Your task to perform on an android device: Open privacy settings Image 0: 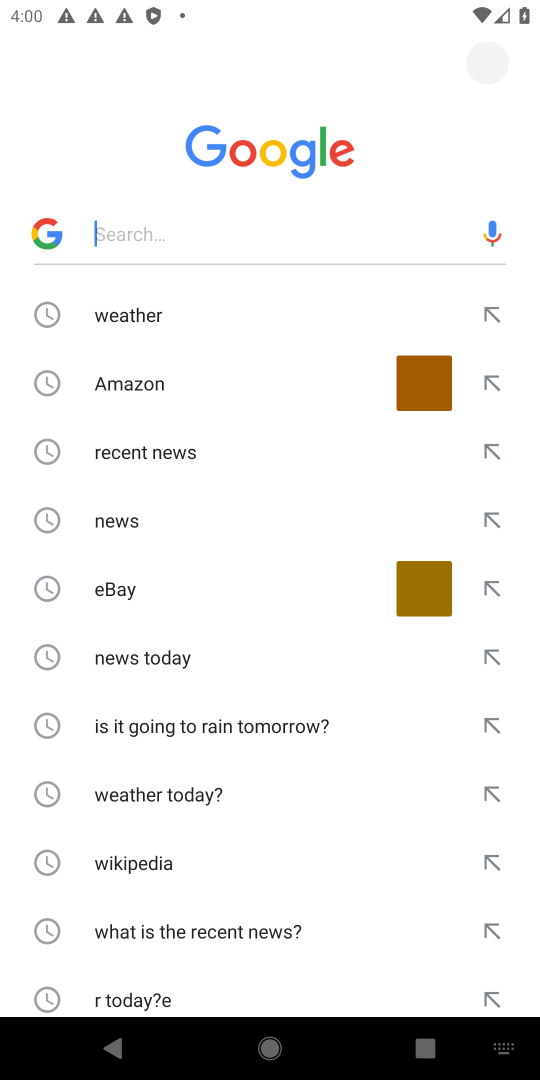
Step 0: press home button
Your task to perform on an android device: Open privacy settings Image 1: 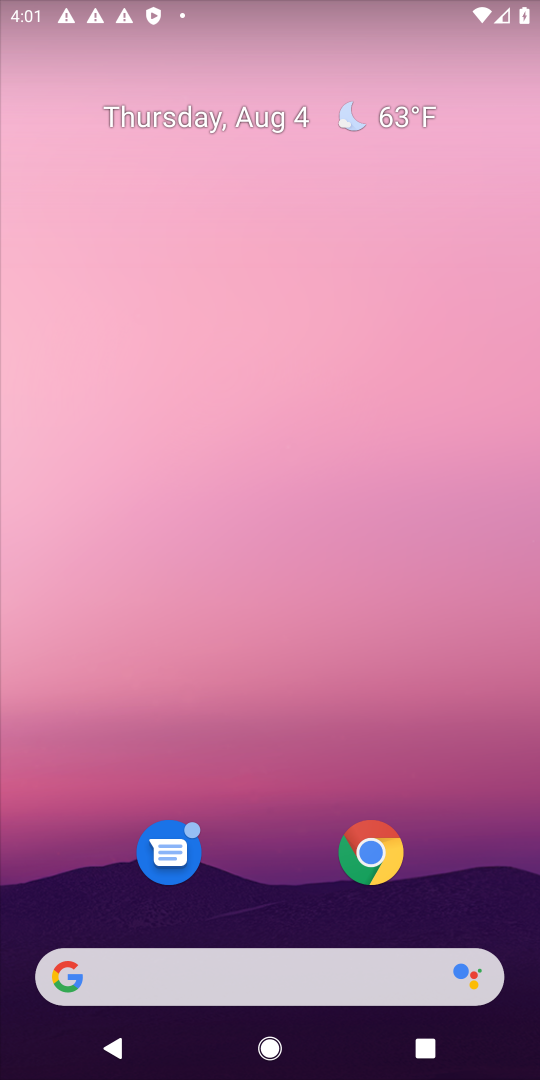
Step 1: drag from (283, 919) to (255, 215)
Your task to perform on an android device: Open privacy settings Image 2: 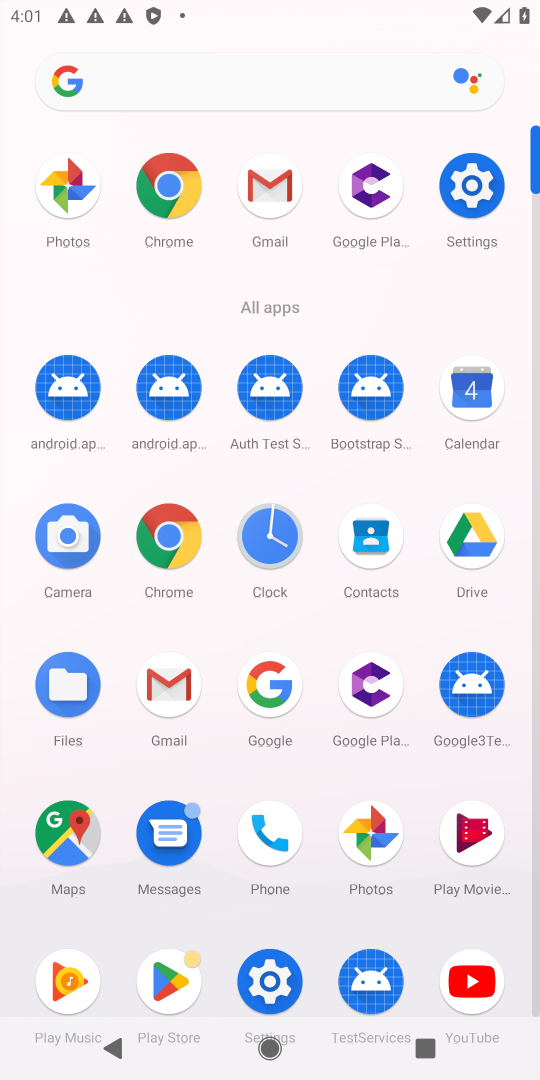
Step 2: click (477, 177)
Your task to perform on an android device: Open privacy settings Image 3: 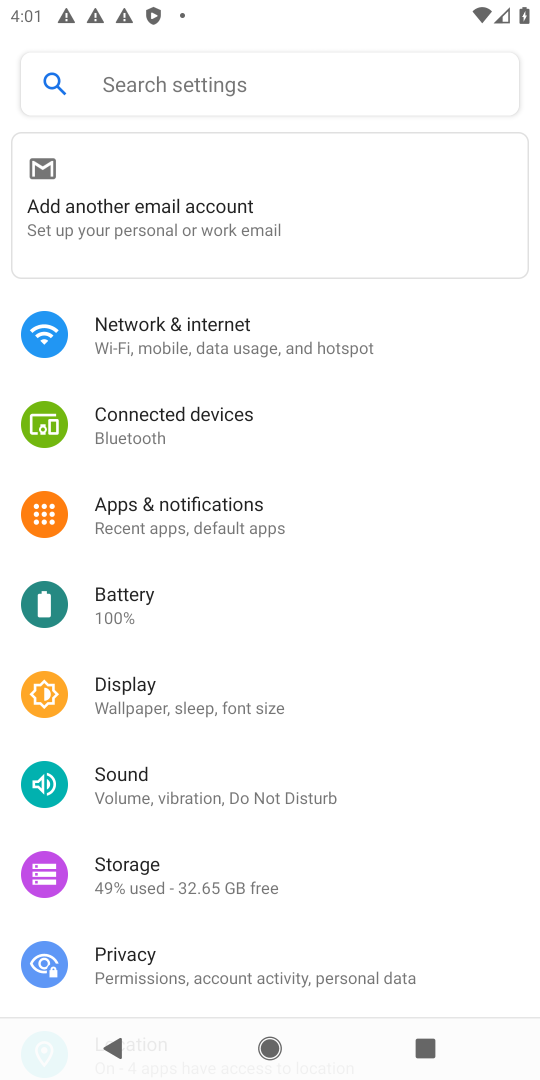
Step 3: click (111, 951)
Your task to perform on an android device: Open privacy settings Image 4: 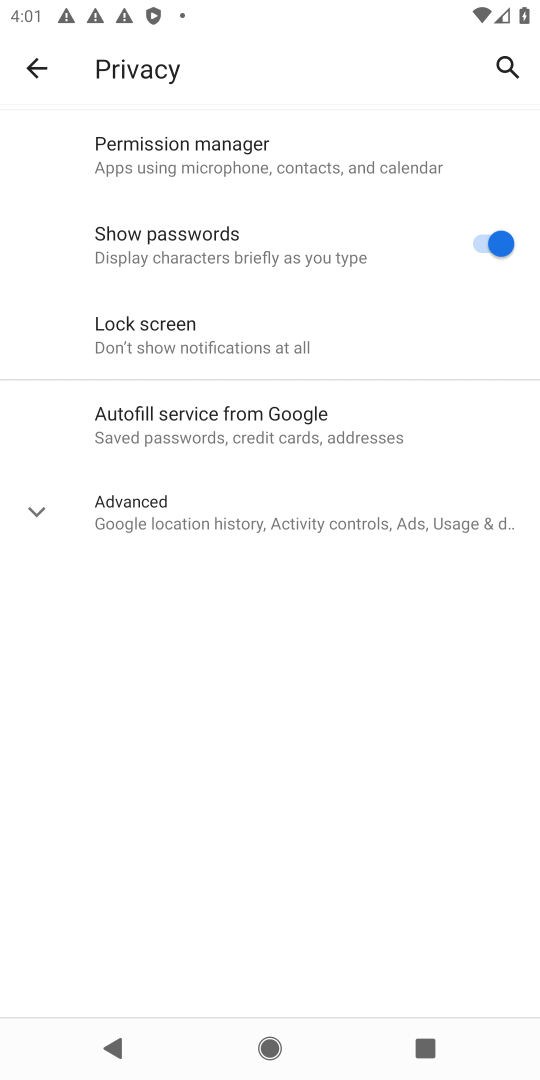
Step 4: task complete